Your task to perform on an android device: Open display settings Image 0: 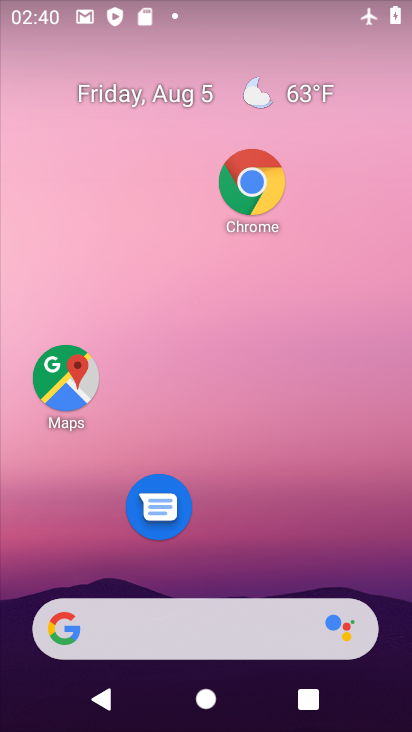
Step 0: drag from (243, 548) to (224, 28)
Your task to perform on an android device: Open display settings Image 1: 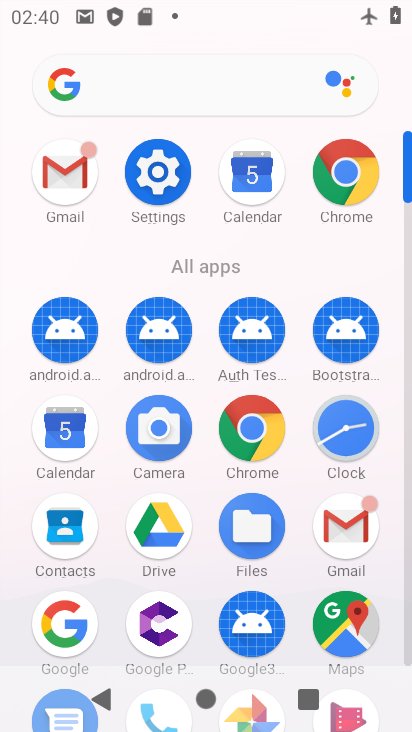
Step 1: click (153, 179)
Your task to perform on an android device: Open display settings Image 2: 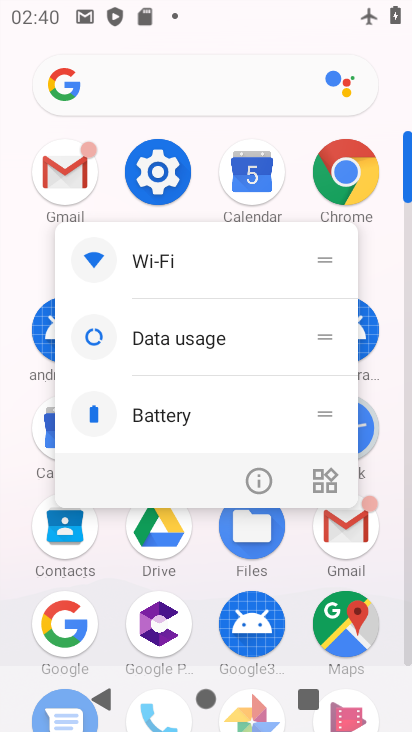
Step 2: click (147, 171)
Your task to perform on an android device: Open display settings Image 3: 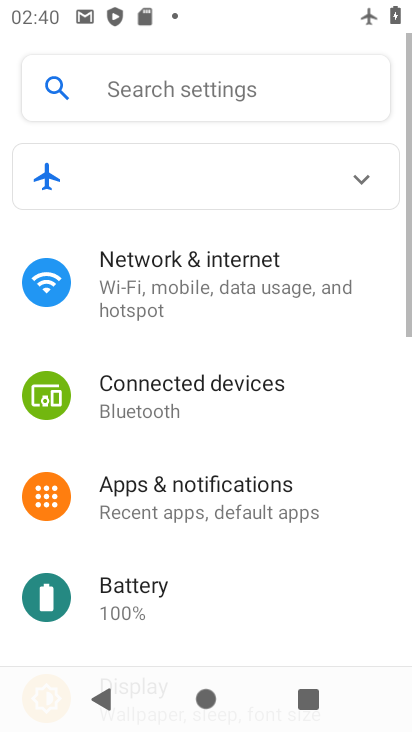
Step 3: drag from (169, 480) to (186, 314)
Your task to perform on an android device: Open display settings Image 4: 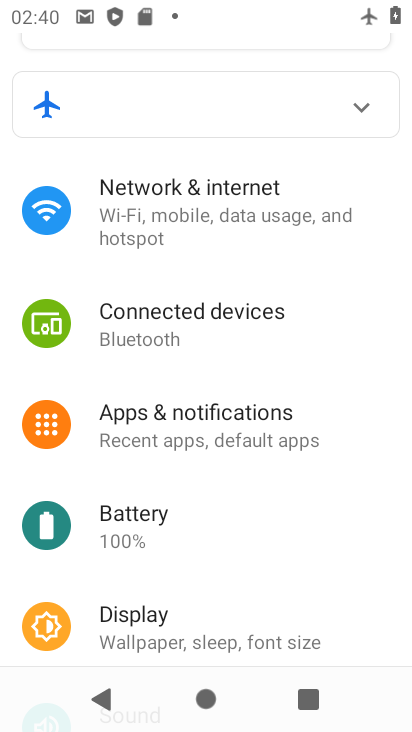
Step 4: click (114, 623)
Your task to perform on an android device: Open display settings Image 5: 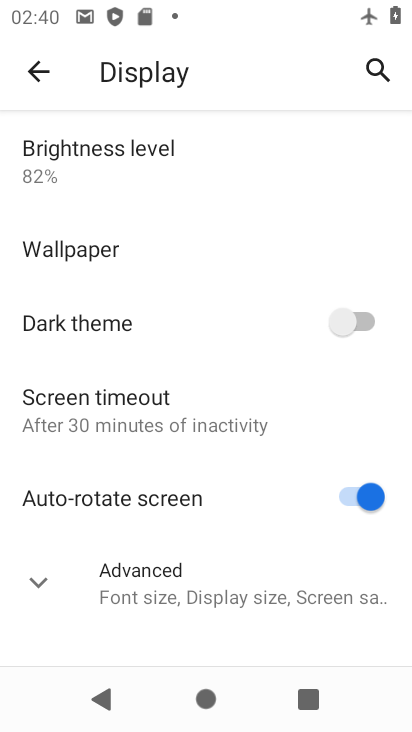
Step 5: task complete